Your task to perform on an android device: uninstall "PlayWell" Image 0: 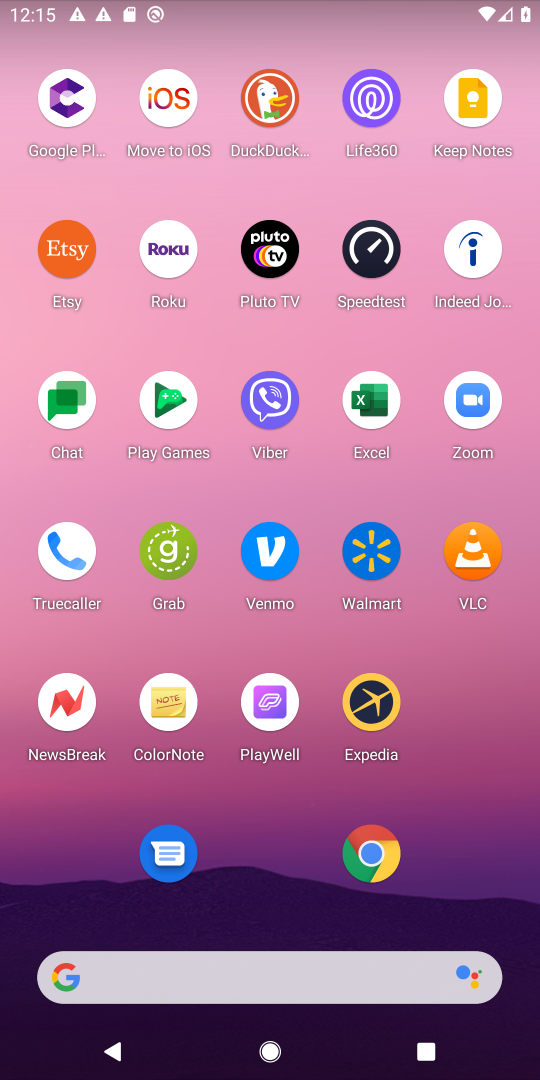
Step 0: drag from (287, 884) to (240, 126)
Your task to perform on an android device: uninstall "PlayWell" Image 1: 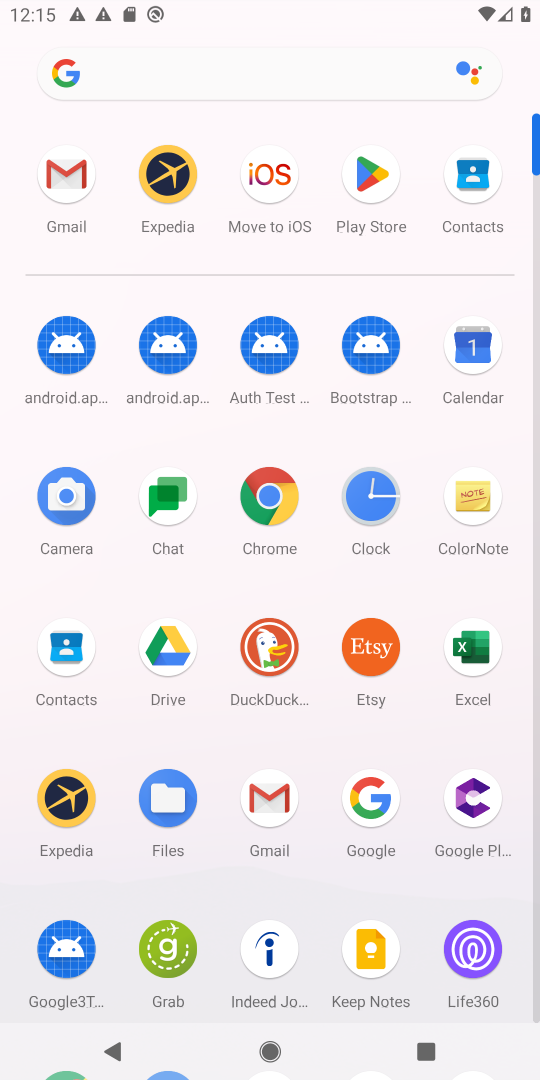
Step 1: drag from (321, 876) to (316, 285)
Your task to perform on an android device: uninstall "PlayWell" Image 2: 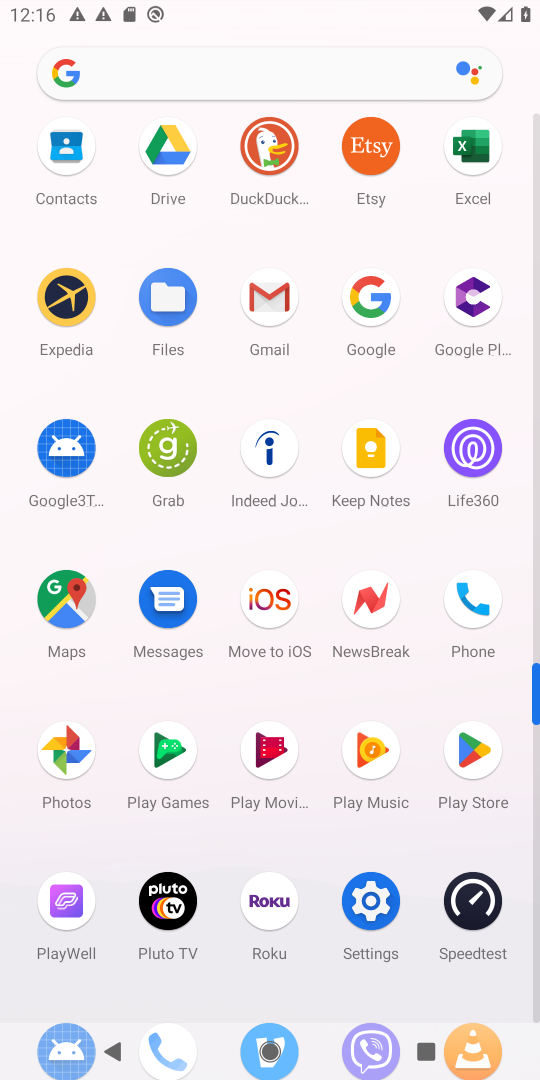
Step 2: drag from (316, 929) to (266, 415)
Your task to perform on an android device: uninstall "PlayWell" Image 3: 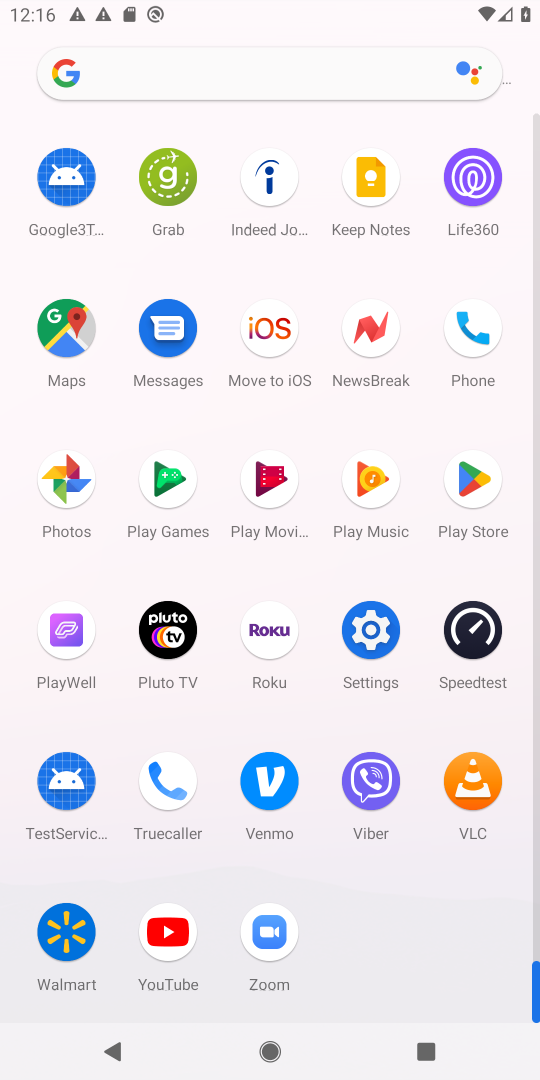
Step 3: click (468, 477)
Your task to perform on an android device: uninstall "PlayWell" Image 4: 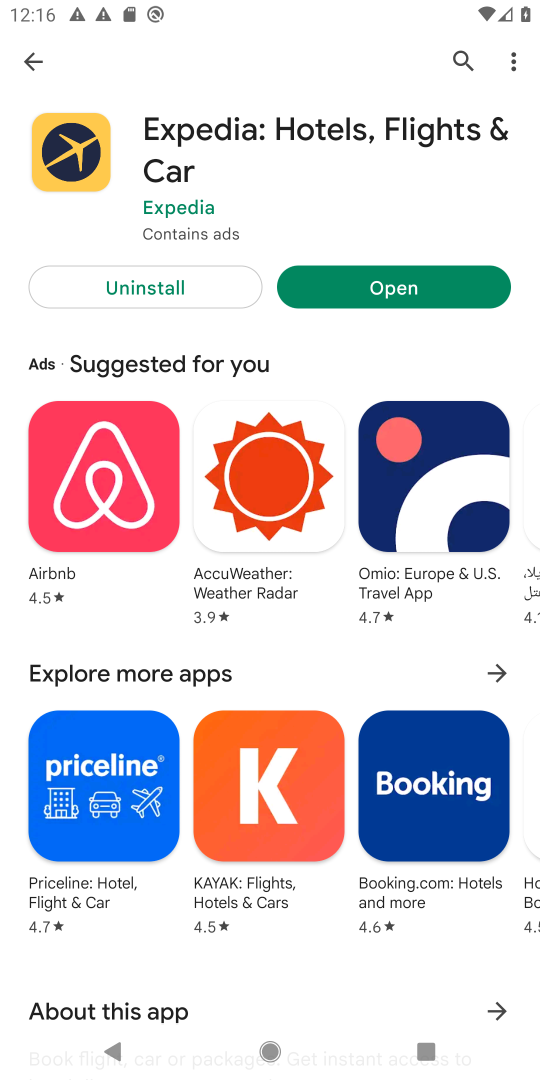
Step 4: click (463, 52)
Your task to perform on an android device: uninstall "PlayWell" Image 5: 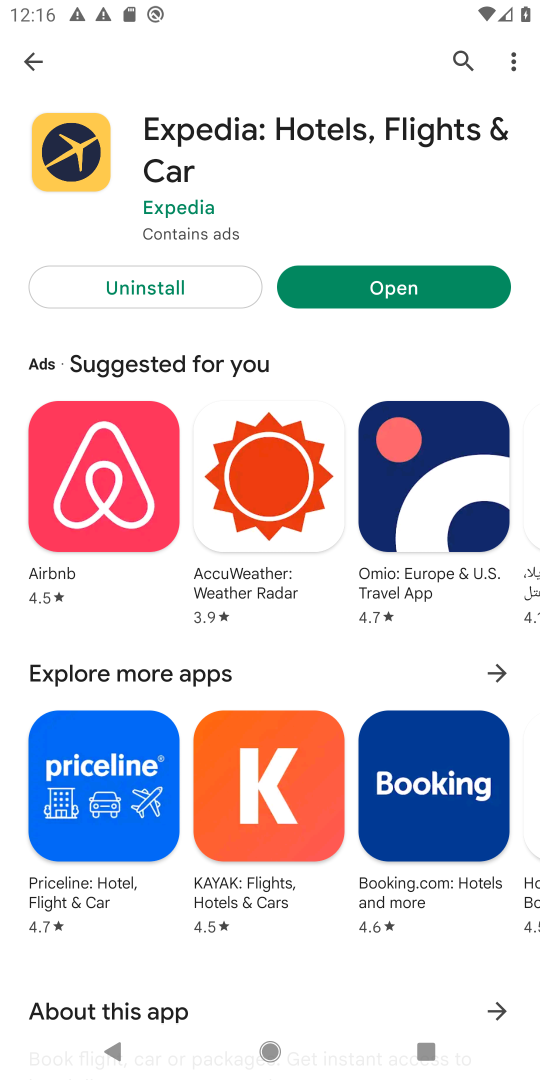
Step 5: click (456, 61)
Your task to perform on an android device: uninstall "PlayWell" Image 6: 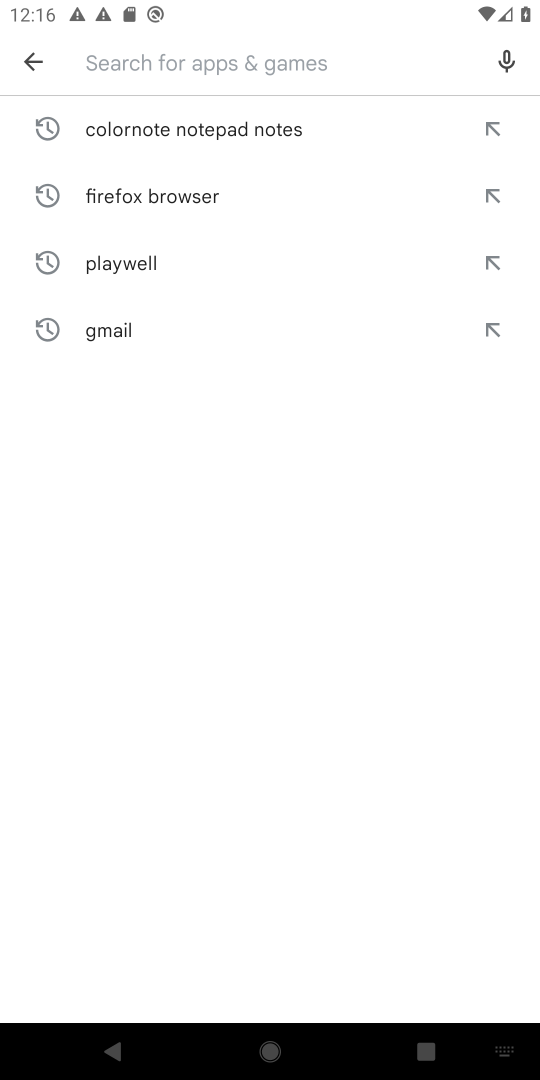
Step 6: type ""
Your task to perform on an android device: uninstall "PlayWell" Image 7: 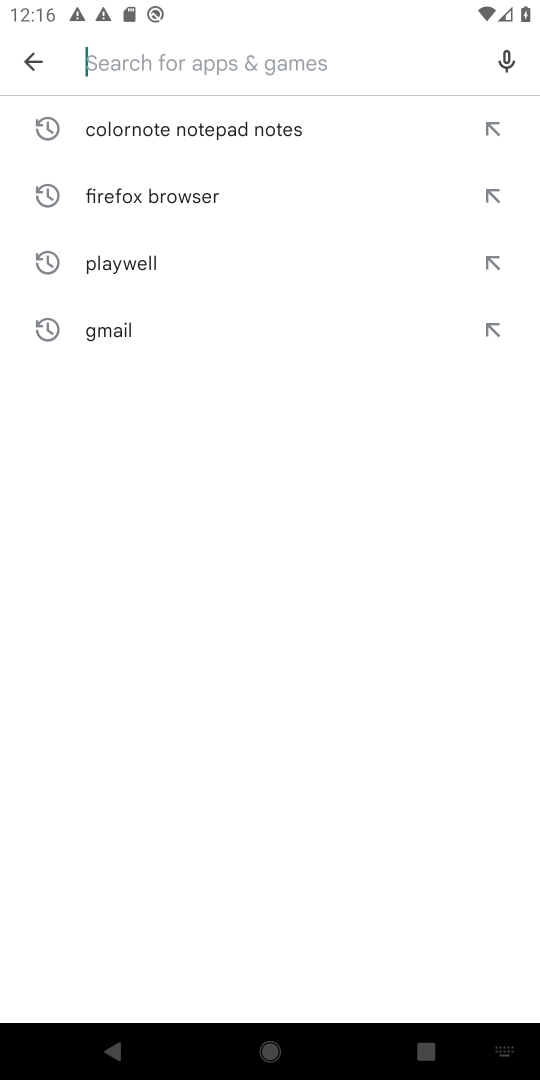
Step 7: type "PlayWell"
Your task to perform on an android device: uninstall "PlayWell" Image 8: 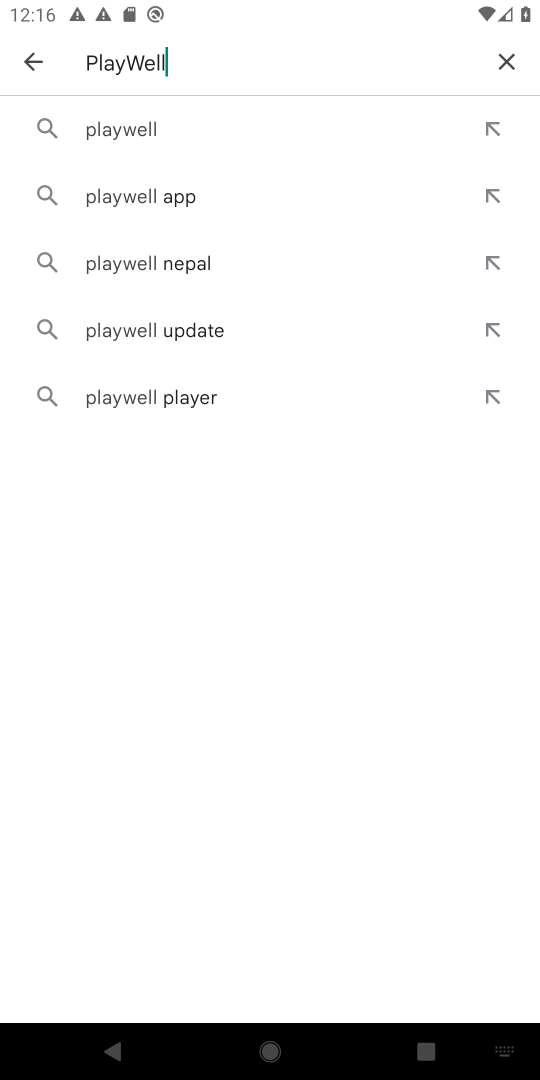
Step 8: type ""
Your task to perform on an android device: uninstall "PlayWell" Image 9: 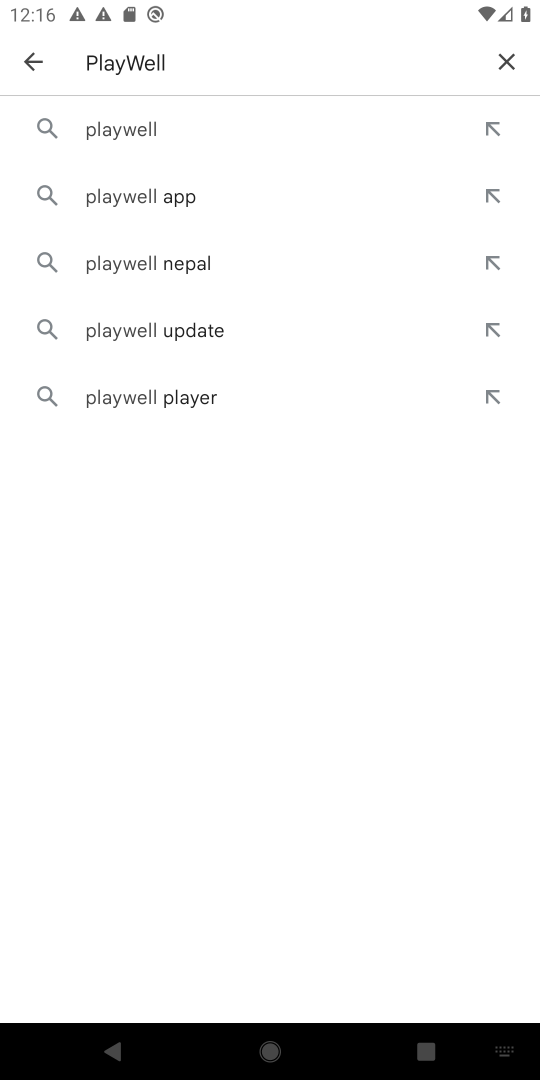
Step 9: click (131, 131)
Your task to perform on an android device: uninstall "PlayWell" Image 10: 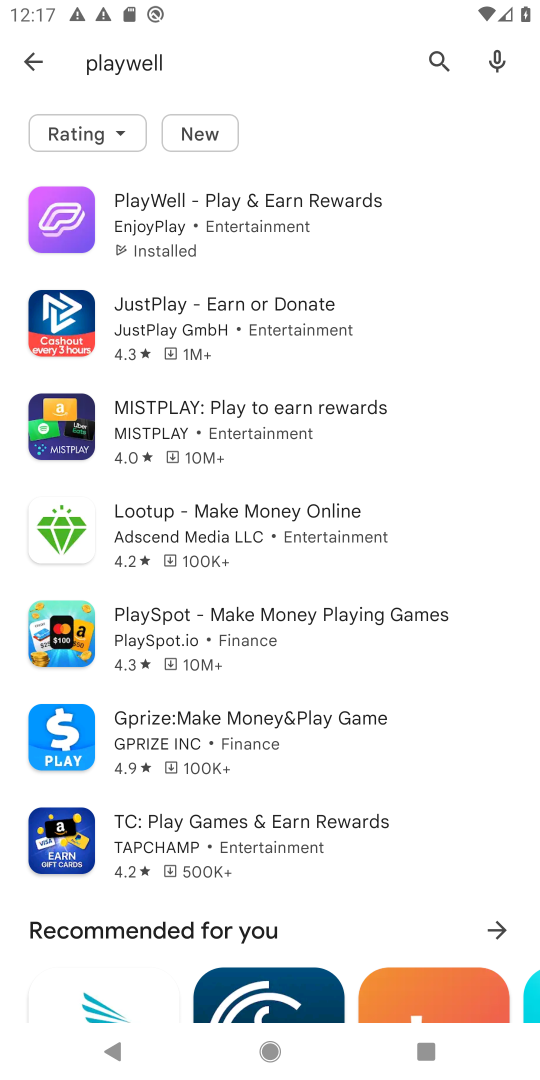
Step 10: click (183, 213)
Your task to perform on an android device: uninstall "PlayWell" Image 11: 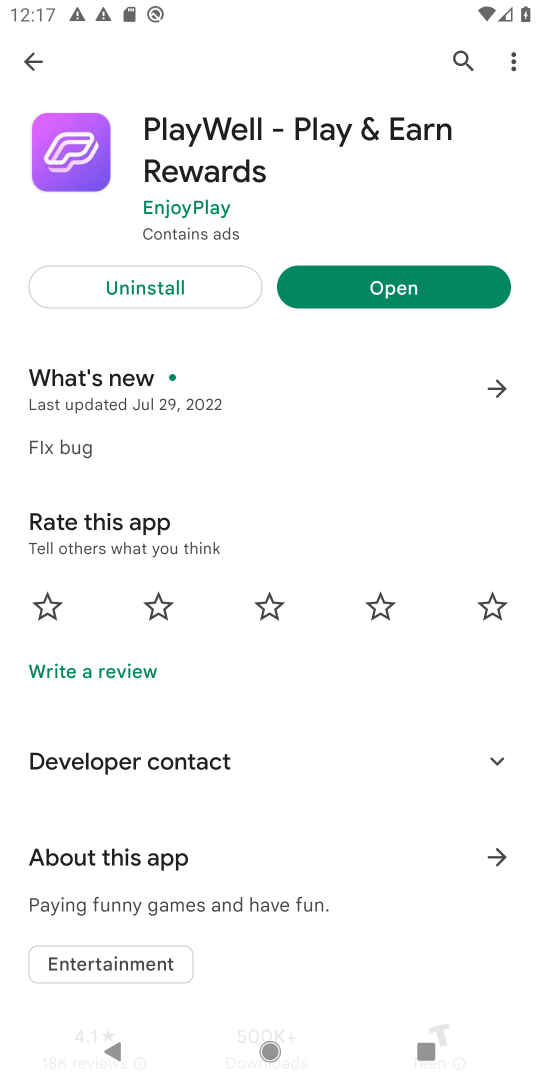
Step 11: click (145, 293)
Your task to perform on an android device: uninstall "PlayWell" Image 12: 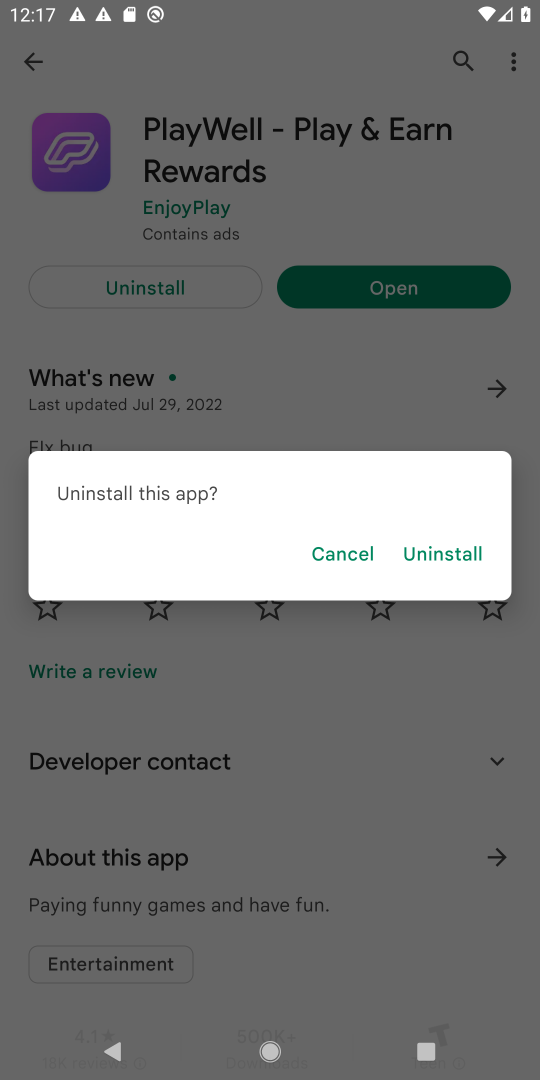
Step 12: click (472, 543)
Your task to perform on an android device: uninstall "PlayWell" Image 13: 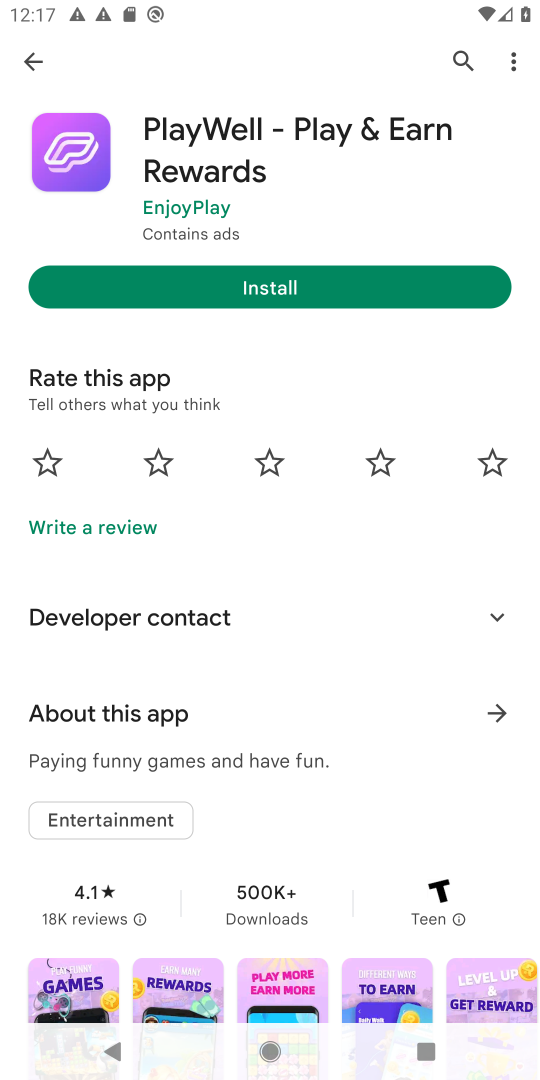
Step 13: task complete